Your task to perform on an android device: turn on priority inbox in the gmail app Image 0: 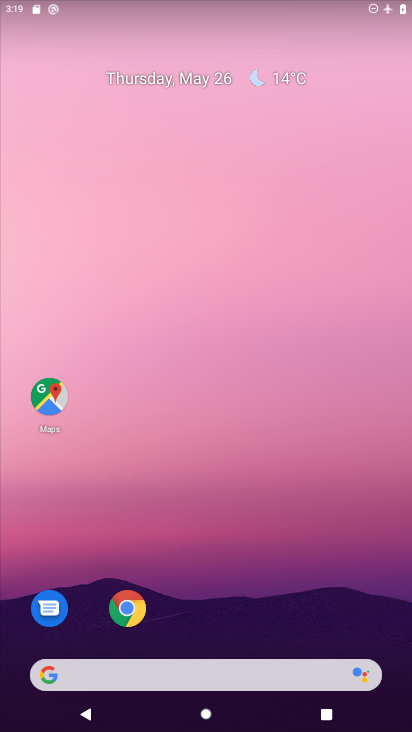
Step 0: drag from (285, 598) to (303, 17)
Your task to perform on an android device: turn on priority inbox in the gmail app Image 1: 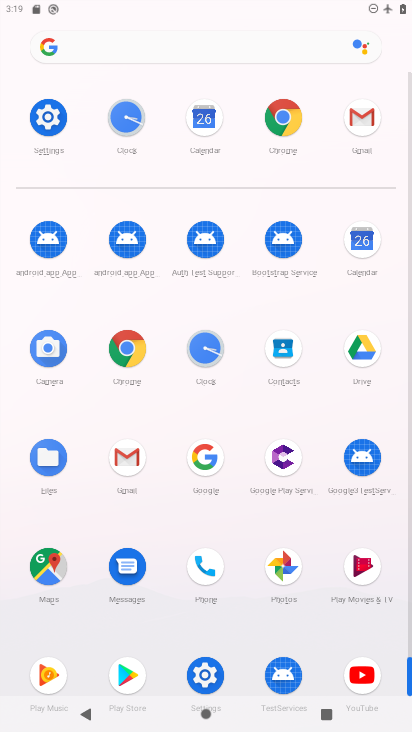
Step 1: click (374, 122)
Your task to perform on an android device: turn on priority inbox in the gmail app Image 2: 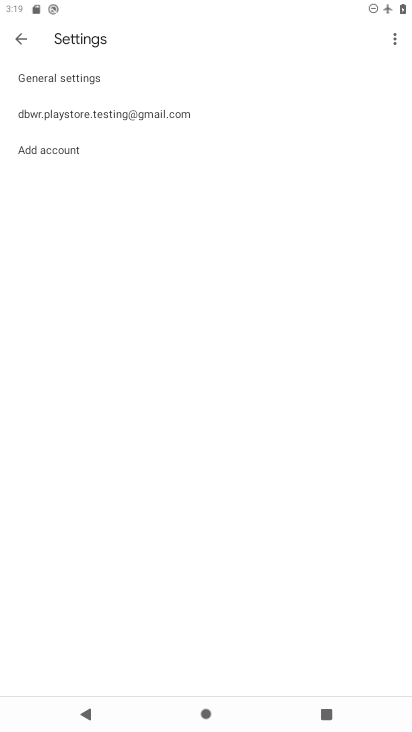
Step 2: click (83, 119)
Your task to perform on an android device: turn on priority inbox in the gmail app Image 3: 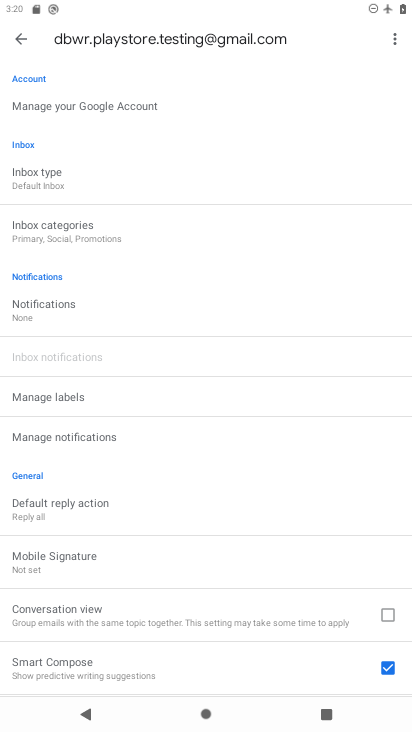
Step 3: click (52, 181)
Your task to perform on an android device: turn on priority inbox in the gmail app Image 4: 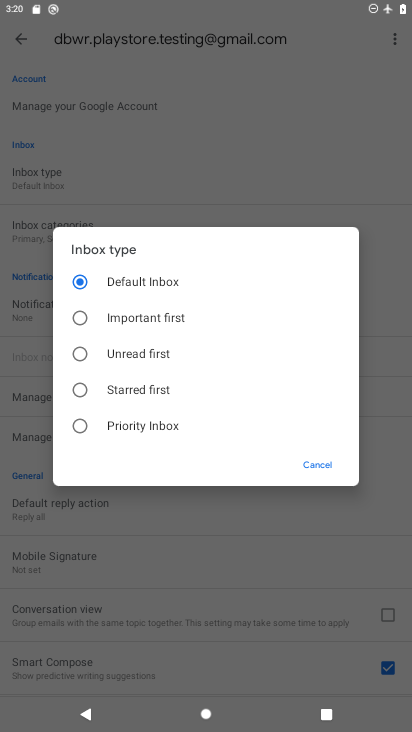
Step 4: click (149, 438)
Your task to perform on an android device: turn on priority inbox in the gmail app Image 5: 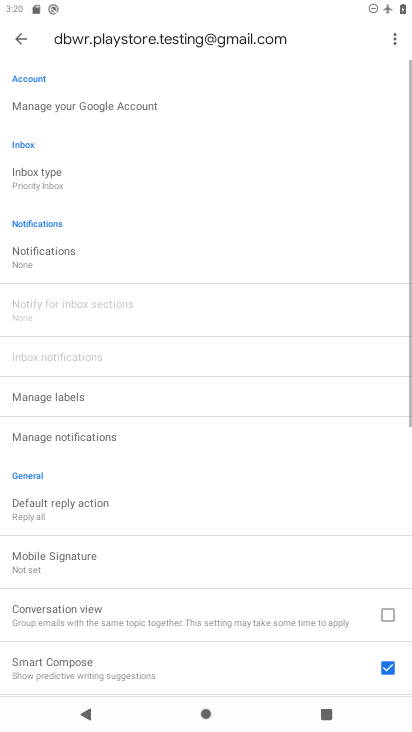
Step 5: task complete